Your task to perform on an android device: Open the map Image 0: 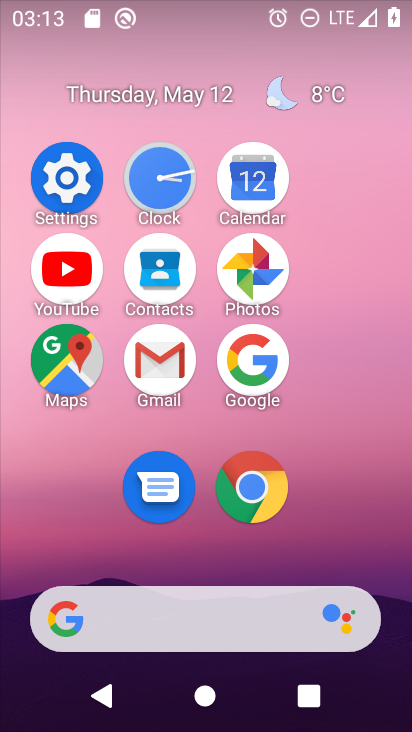
Step 0: click (48, 350)
Your task to perform on an android device: Open the map Image 1: 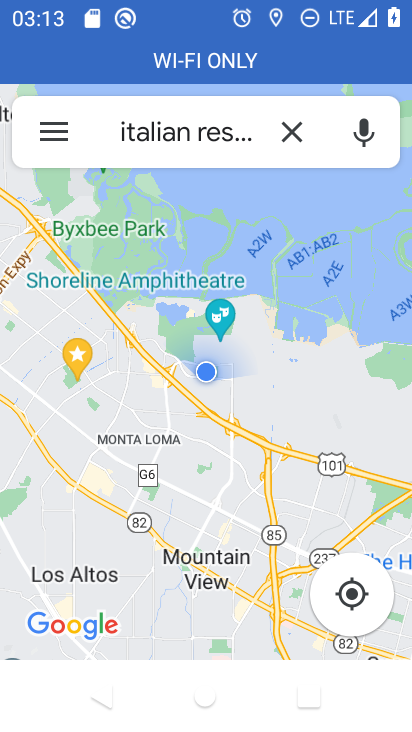
Step 1: task complete